Your task to perform on an android device: Open eBay Image 0: 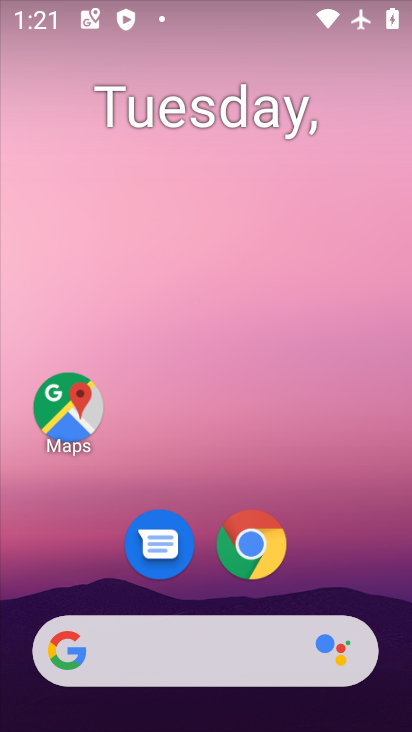
Step 0: click (249, 541)
Your task to perform on an android device: Open eBay Image 1: 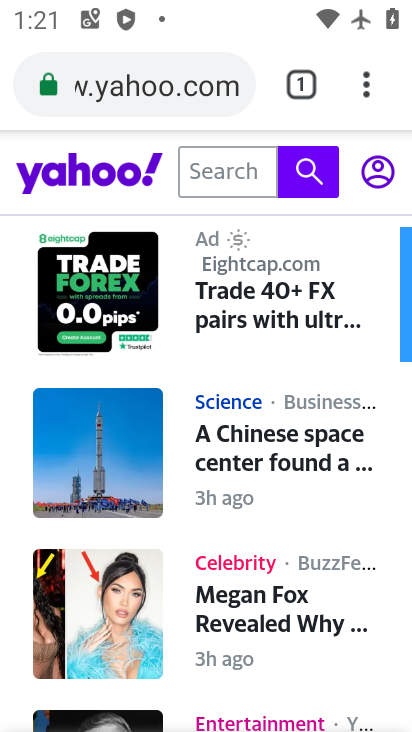
Step 1: click (243, 87)
Your task to perform on an android device: Open eBay Image 2: 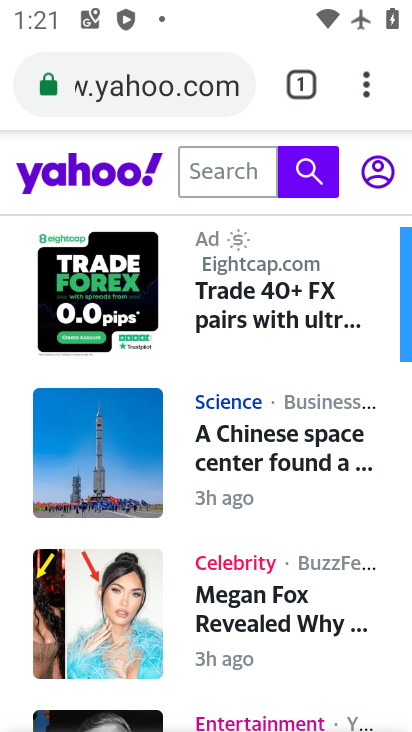
Step 2: click (229, 63)
Your task to perform on an android device: Open eBay Image 3: 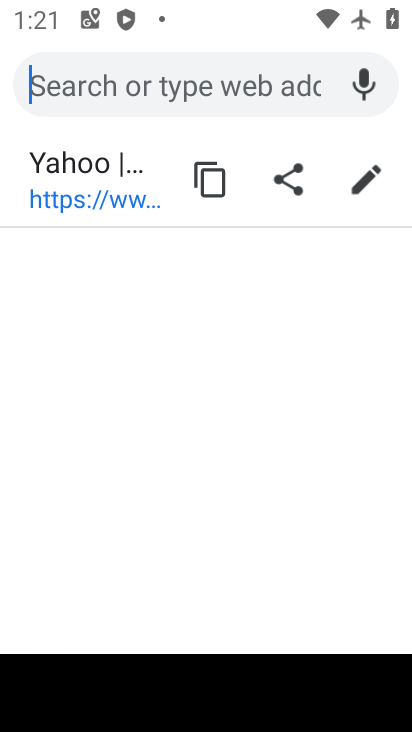
Step 3: type "ebay"
Your task to perform on an android device: Open eBay Image 4: 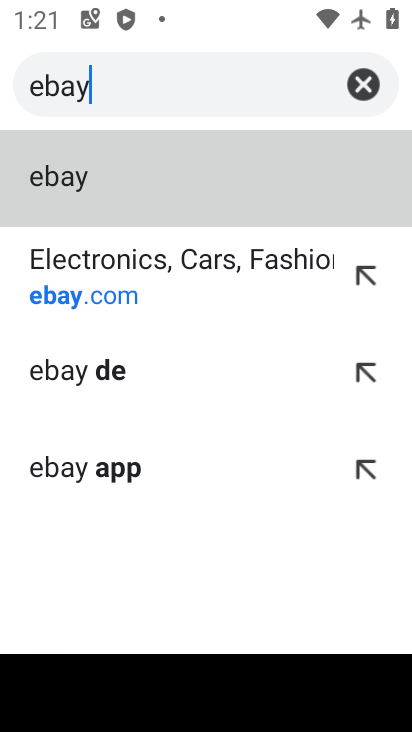
Step 4: click (111, 276)
Your task to perform on an android device: Open eBay Image 5: 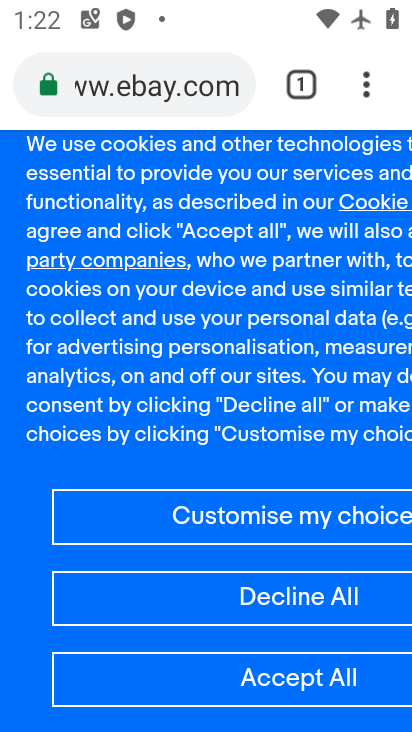
Step 5: task complete